Your task to perform on an android device: Open accessibility settings Image 0: 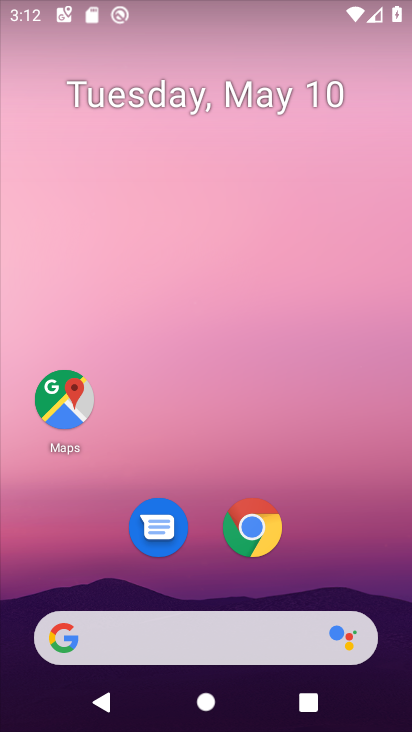
Step 0: drag from (393, 366) to (384, 297)
Your task to perform on an android device: Open accessibility settings Image 1: 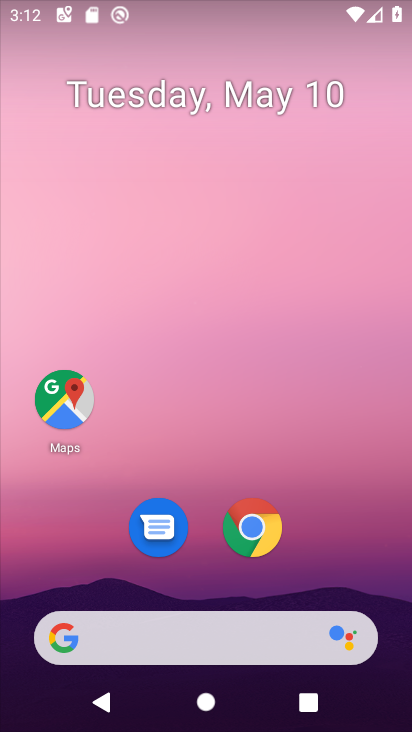
Step 1: drag from (399, 708) to (408, 258)
Your task to perform on an android device: Open accessibility settings Image 2: 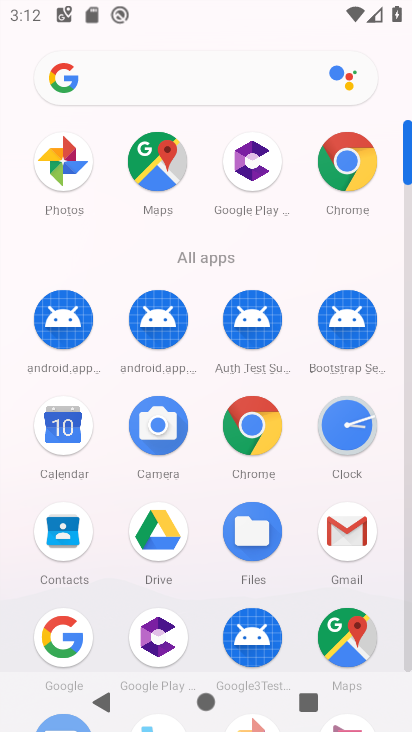
Step 2: click (410, 132)
Your task to perform on an android device: Open accessibility settings Image 3: 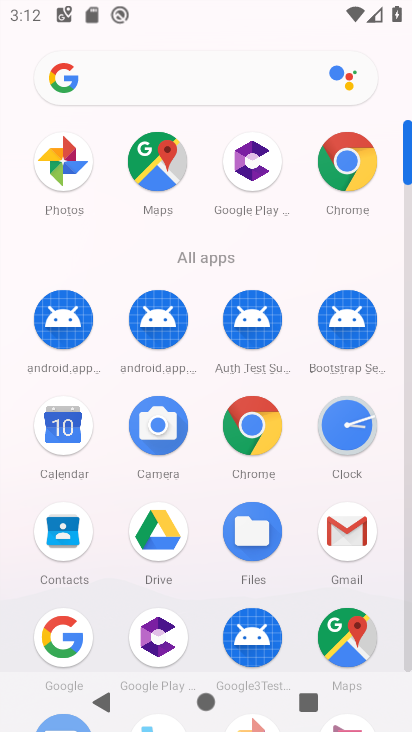
Step 3: click (408, 154)
Your task to perform on an android device: Open accessibility settings Image 4: 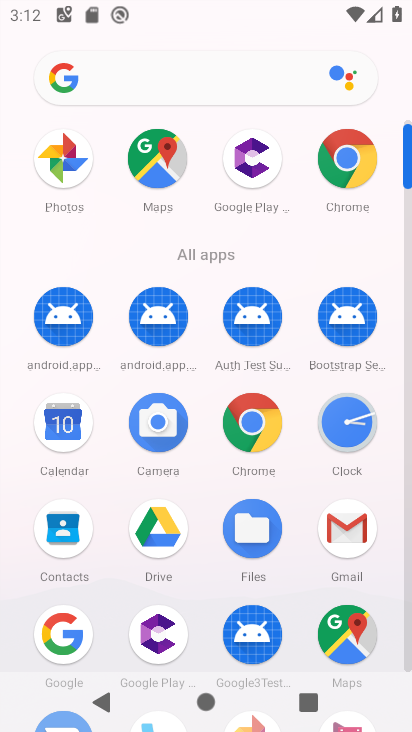
Step 4: click (411, 135)
Your task to perform on an android device: Open accessibility settings Image 5: 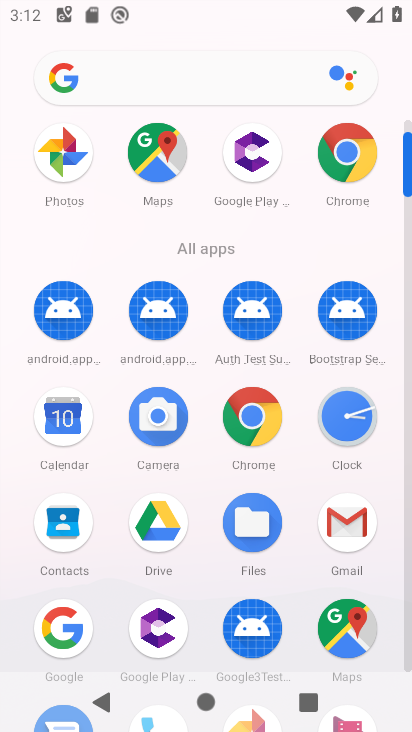
Step 5: drag from (410, 163) to (411, 61)
Your task to perform on an android device: Open accessibility settings Image 6: 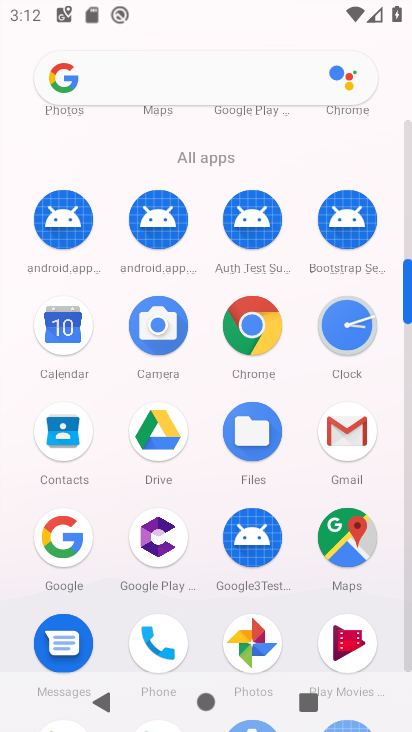
Step 6: drag from (410, 271) to (411, 145)
Your task to perform on an android device: Open accessibility settings Image 7: 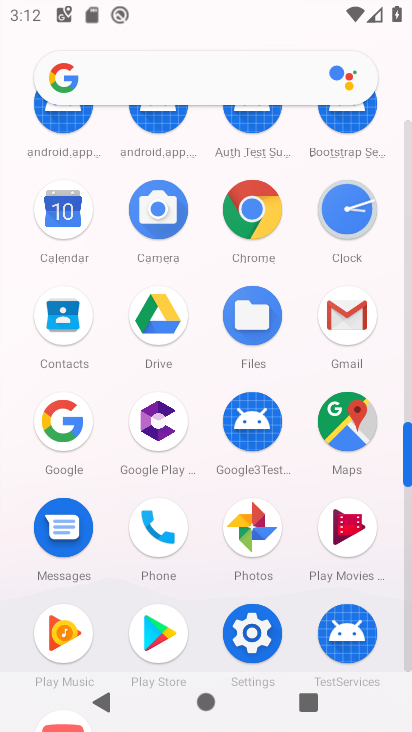
Step 7: click (249, 634)
Your task to perform on an android device: Open accessibility settings Image 8: 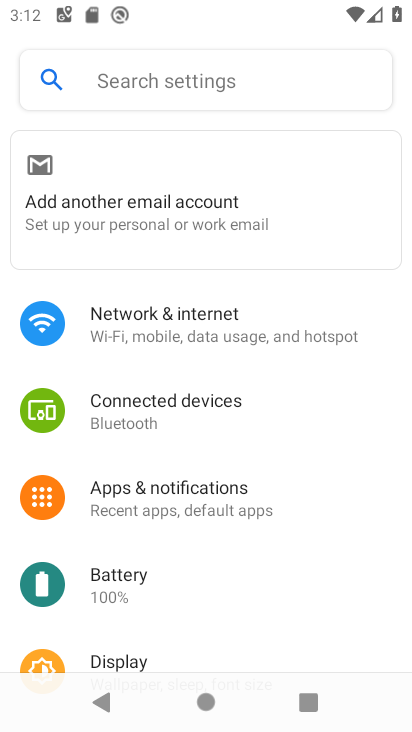
Step 8: drag from (388, 619) to (362, 346)
Your task to perform on an android device: Open accessibility settings Image 9: 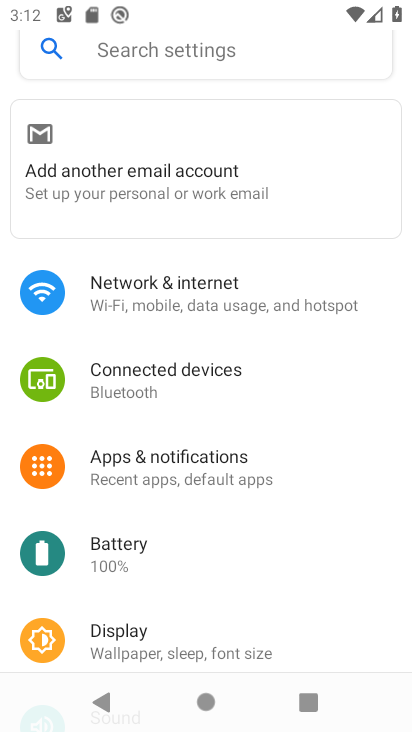
Step 9: drag from (380, 631) to (377, 370)
Your task to perform on an android device: Open accessibility settings Image 10: 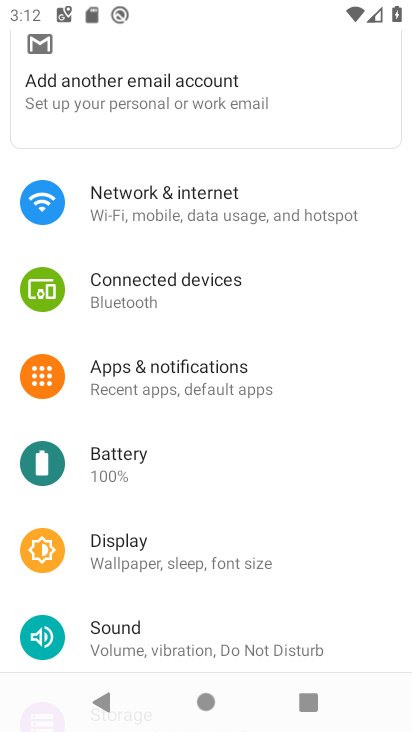
Step 10: drag from (370, 572) to (367, 480)
Your task to perform on an android device: Open accessibility settings Image 11: 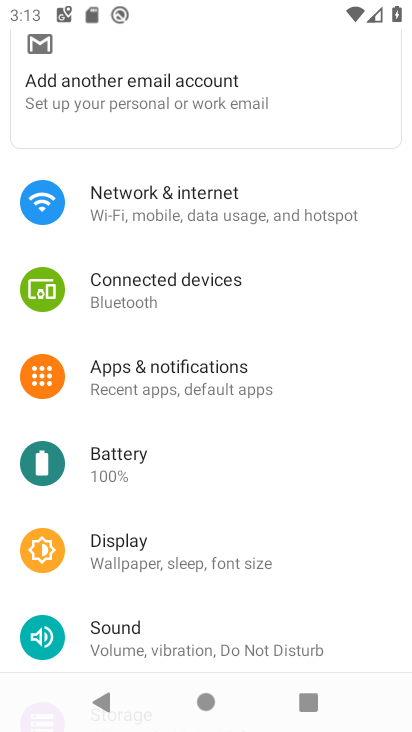
Step 11: drag from (392, 645) to (412, 316)
Your task to perform on an android device: Open accessibility settings Image 12: 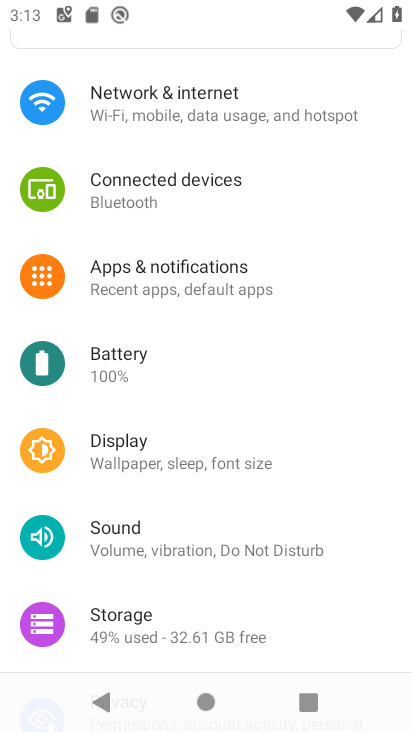
Step 12: drag from (376, 642) to (355, 453)
Your task to perform on an android device: Open accessibility settings Image 13: 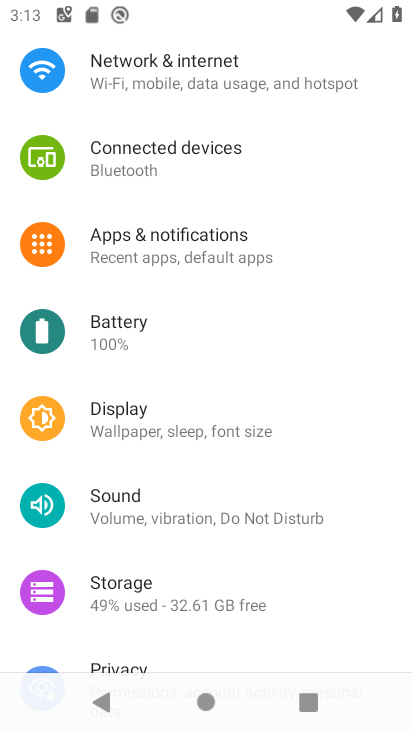
Step 13: drag from (383, 644) to (359, 381)
Your task to perform on an android device: Open accessibility settings Image 14: 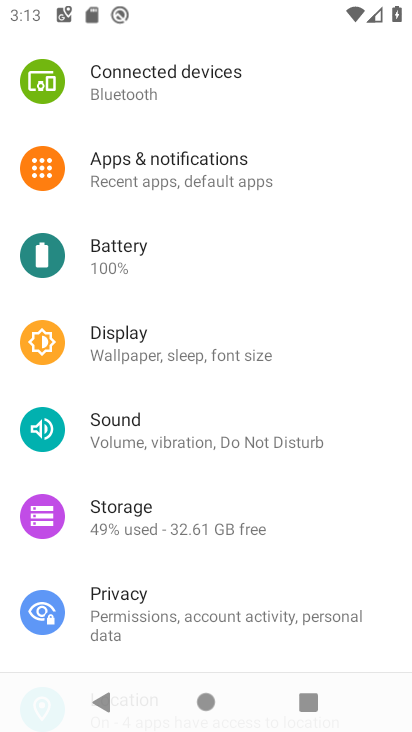
Step 14: drag from (380, 649) to (387, 406)
Your task to perform on an android device: Open accessibility settings Image 15: 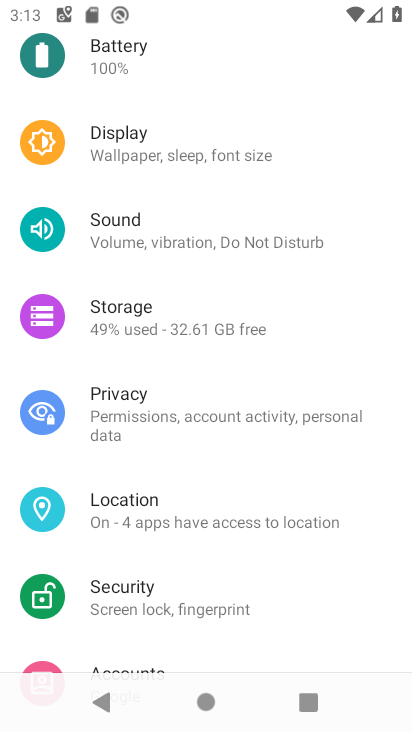
Step 15: drag from (364, 475) to (362, 343)
Your task to perform on an android device: Open accessibility settings Image 16: 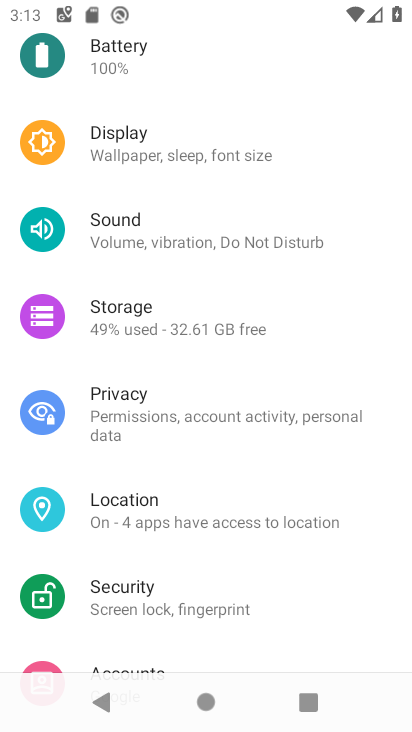
Step 16: drag from (378, 645) to (392, 318)
Your task to perform on an android device: Open accessibility settings Image 17: 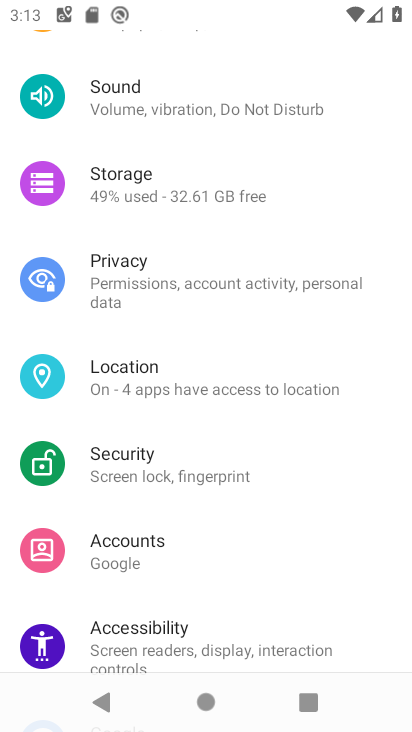
Step 17: click (154, 627)
Your task to perform on an android device: Open accessibility settings Image 18: 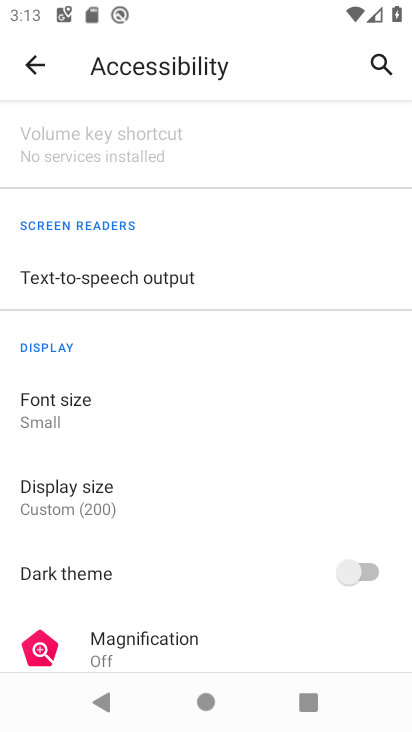
Step 18: task complete